Your task to perform on an android device: turn on notifications settings in the gmail app Image 0: 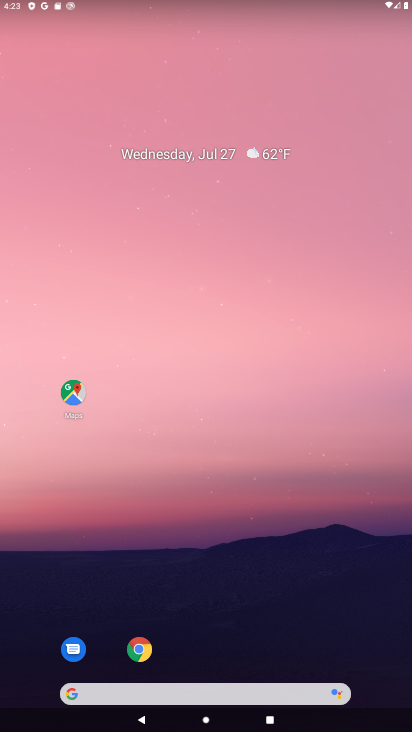
Step 0: drag from (291, 532) to (323, 262)
Your task to perform on an android device: turn on notifications settings in the gmail app Image 1: 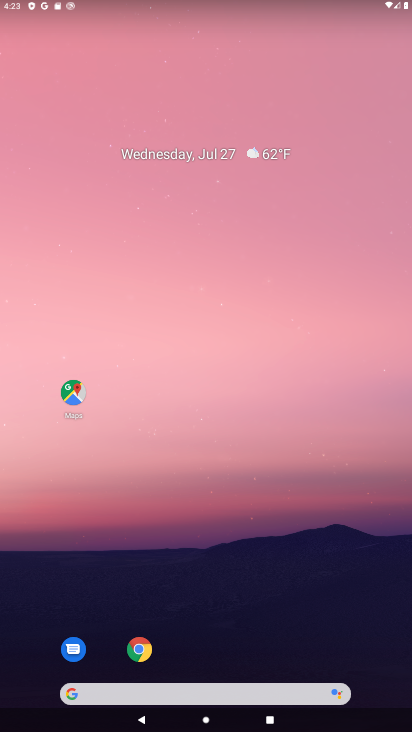
Step 1: drag from (260, 541) to (277, 112)
Your task to perform on an android device: turn on notifications settings in the gmail app Image 2: 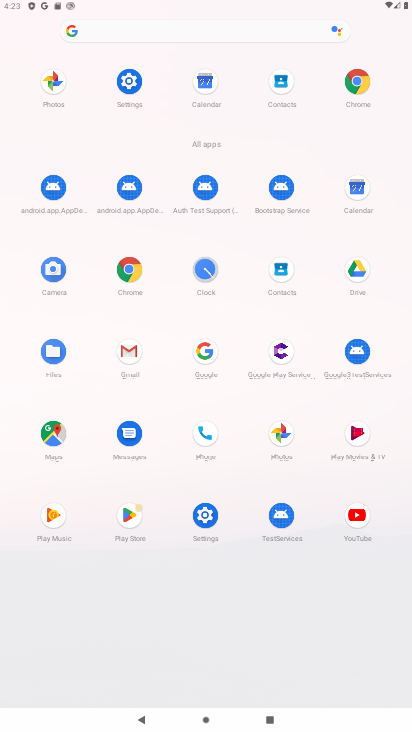
Step 2: click (125, 350)
Your task to perform on an android device: turn on notifications settings in the gmail app Image 3: 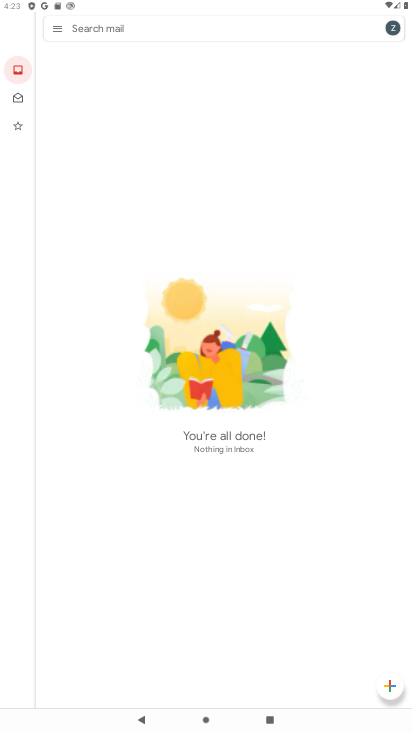
Step 3: task complete